Your task to perform on an android device: Go to settings Image 0: 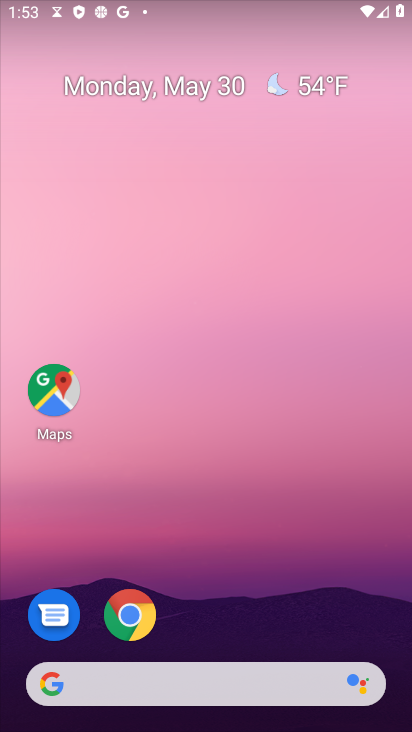
Step 0: drag from (313, 483) to (310, 122)
Your task to perform on an android device: Go to settings Image 1: 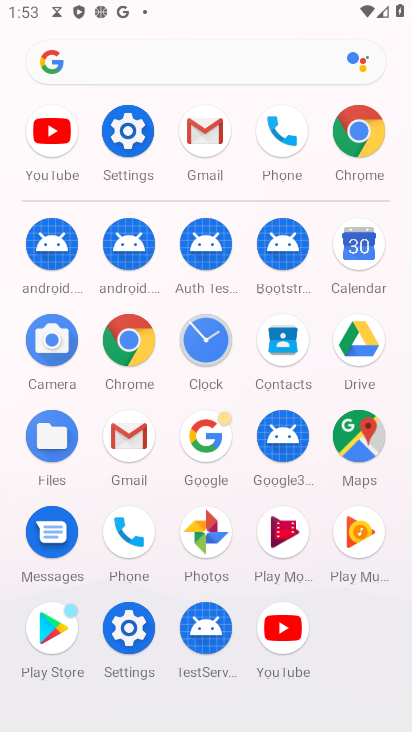
Step 1: click (132, 134)
Your task to perform on an android device: Go to settings Image 2: 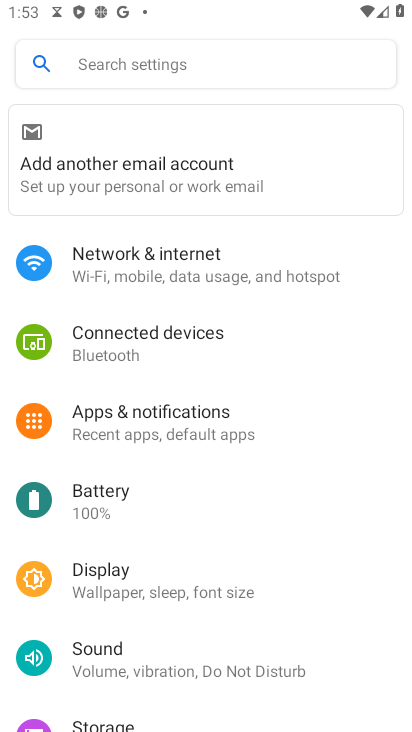
Step 2: task complete